Your task to perform on an android device: create a new album in the google photos Image 0: 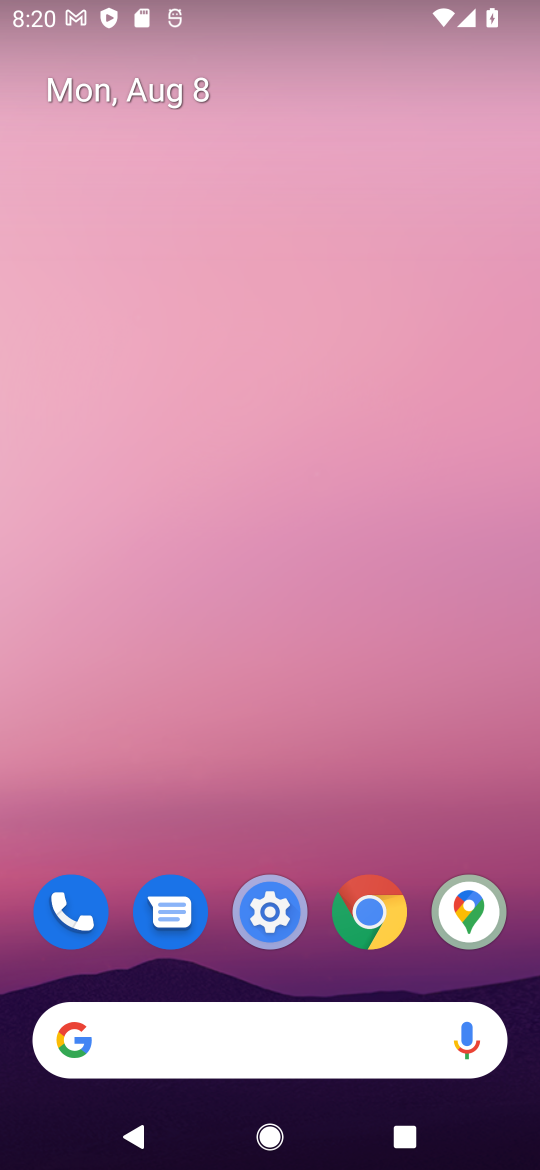
Step 0: drag from (395, 967) to (268, 37)
Your task to perform on an android device: create a new album in the google photos Image 1: 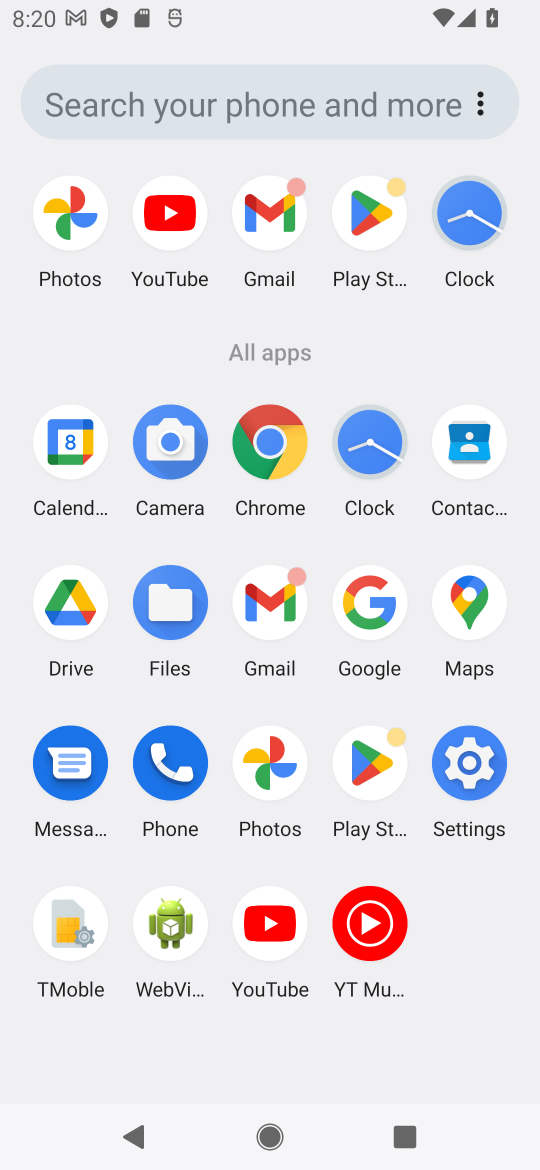
Step 1: click (288, 770)
Your task to perform on an android device: create a new album in the google photos Image 2: 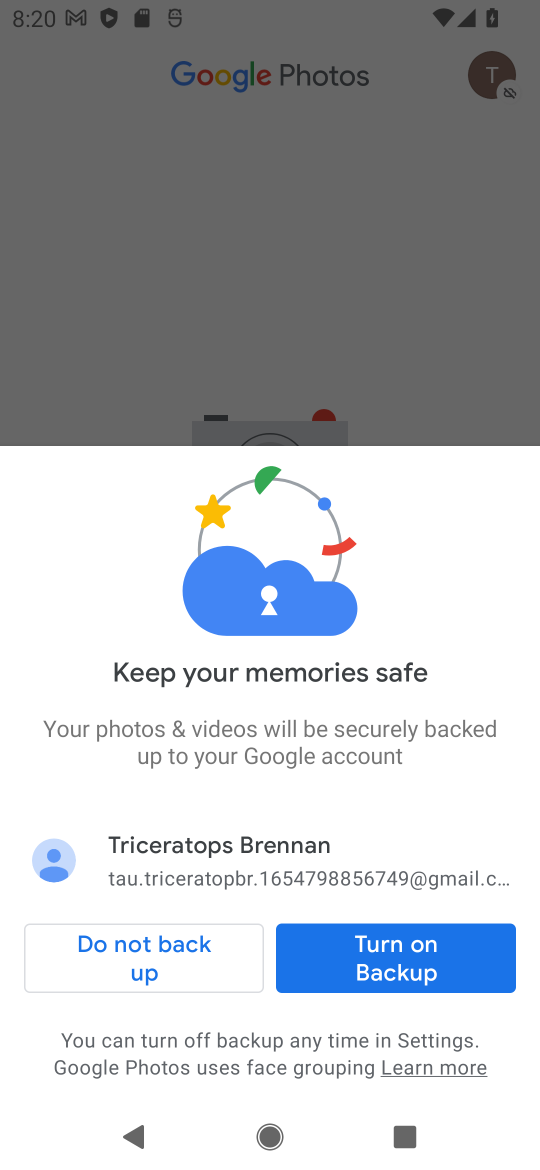
Step 2: click (345, 976)
Your task to perform on an android device: create a new album in the google photos Image 3: 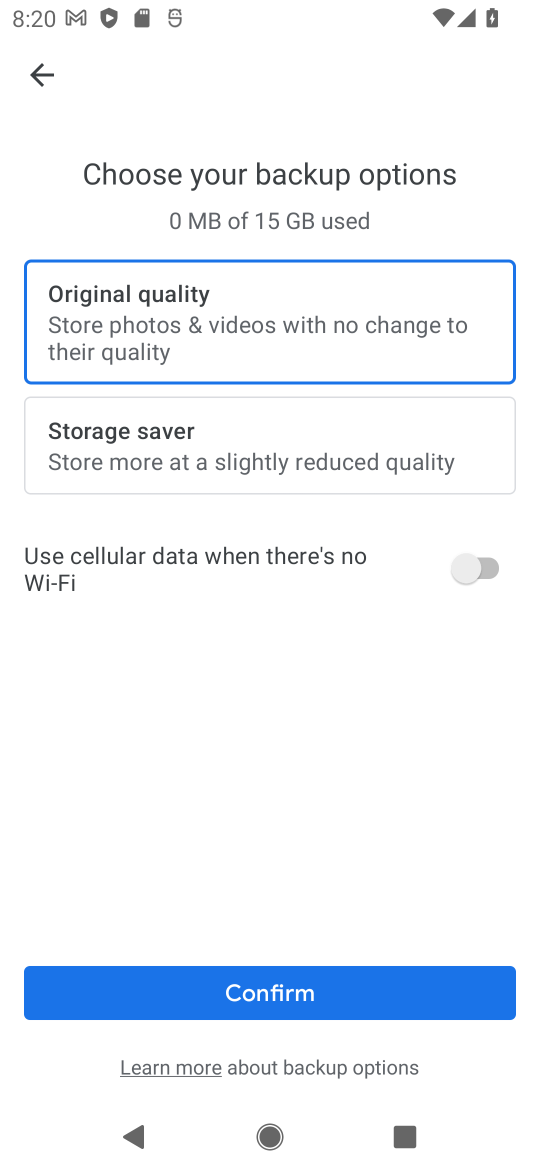
Step 3: click (344, 977)
Your task to perform on an android device: create a new album in the google photos Image 4: 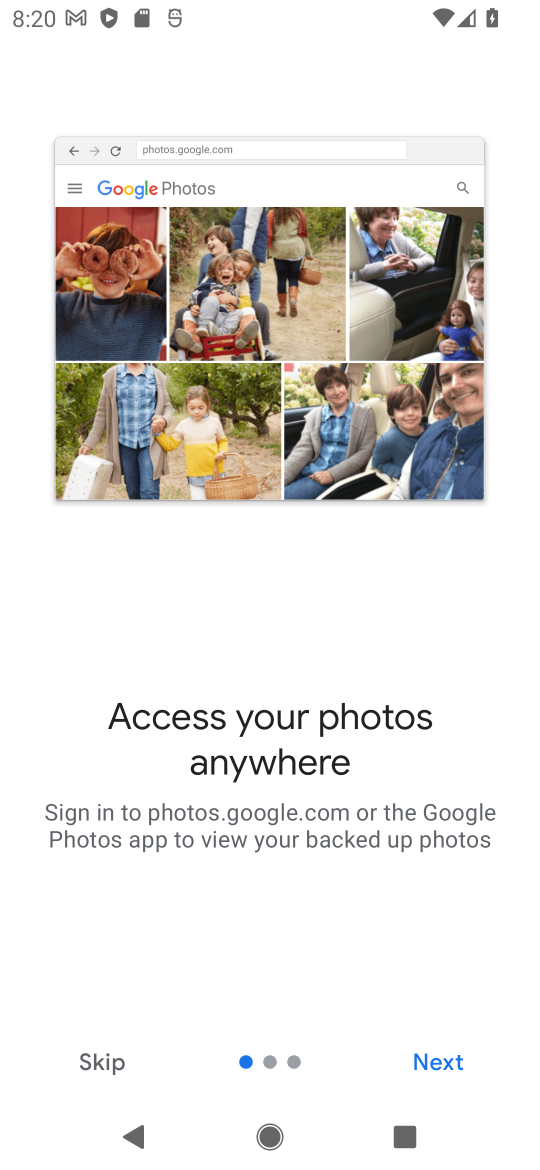
Step 4: click (447, 1055)
Your task to perform on an android device: create a new album in the google photos Image 5: 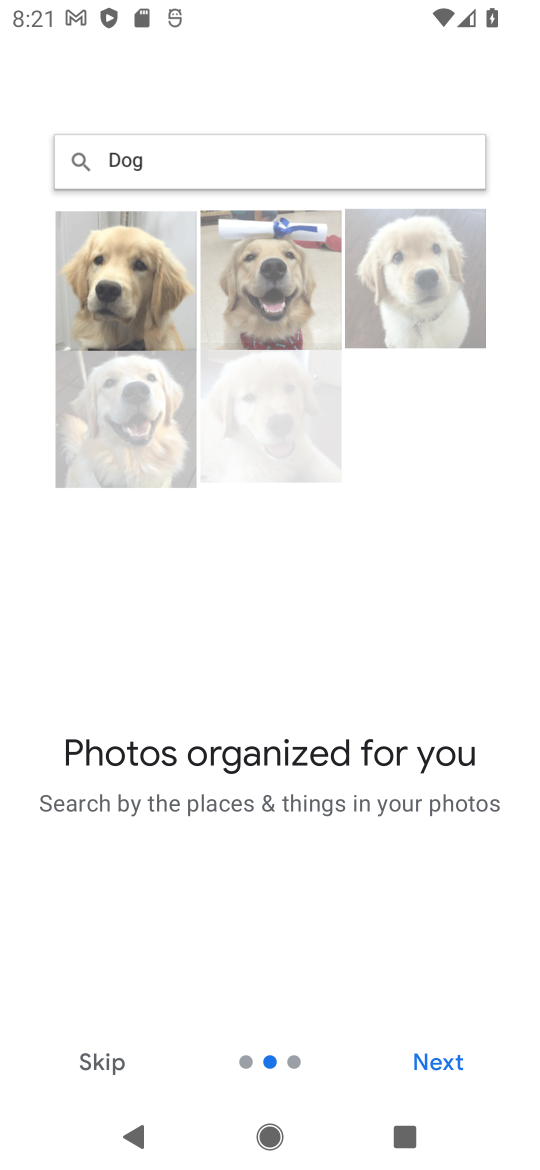
Step 5: click (447, 1055)
Your task to perform on an android device: create a new album in the google photos Image 6: 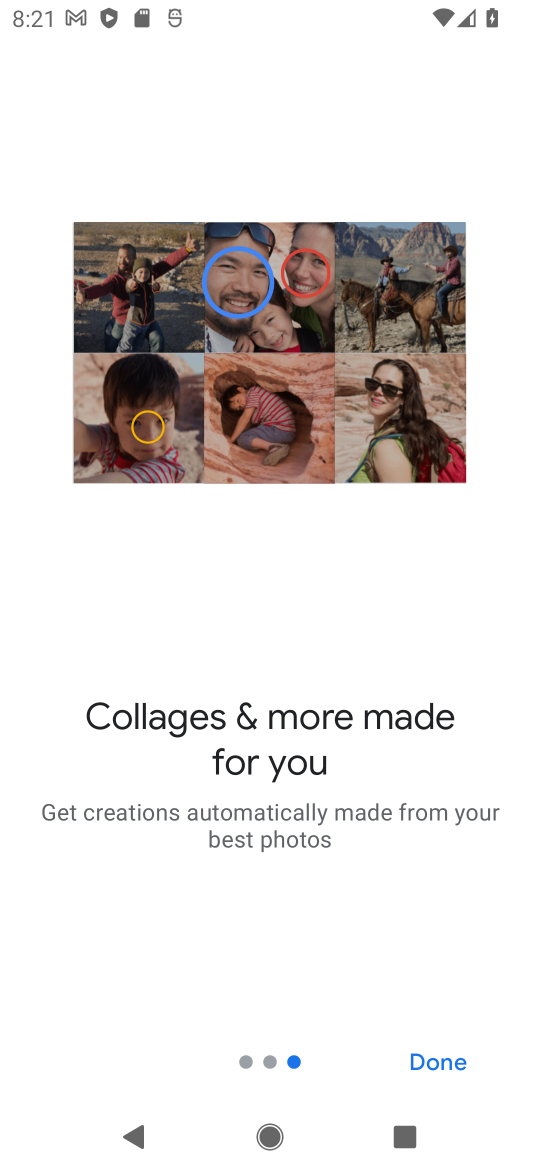
Step 6: click (447, 1055)
Your task to perform on an android device: create a new album in the google photos Image 7: 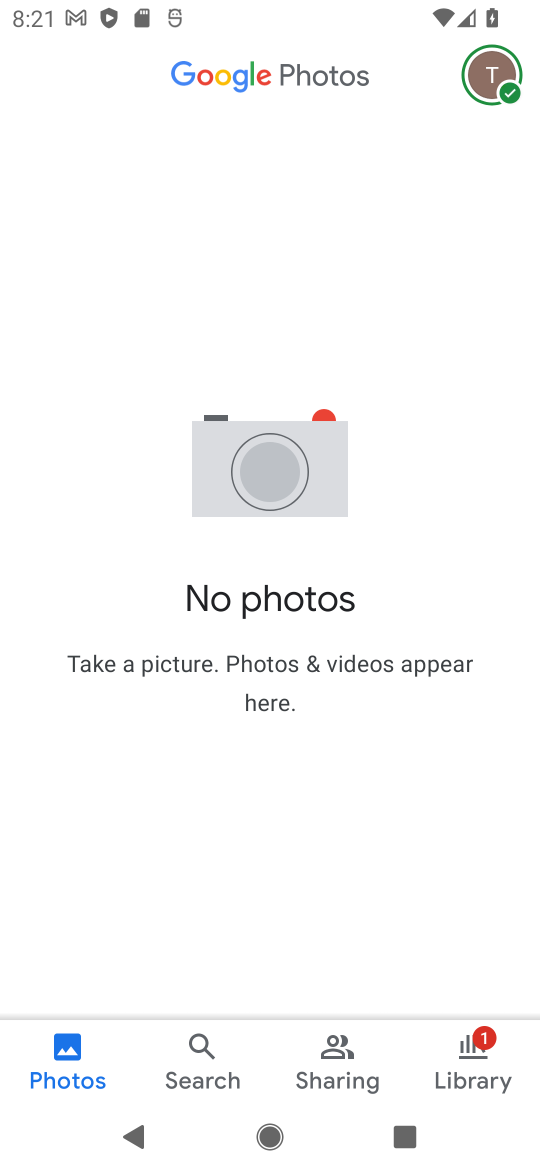
Step 7: task complete